Your task to perform on an android device: See recent photos Image 0: 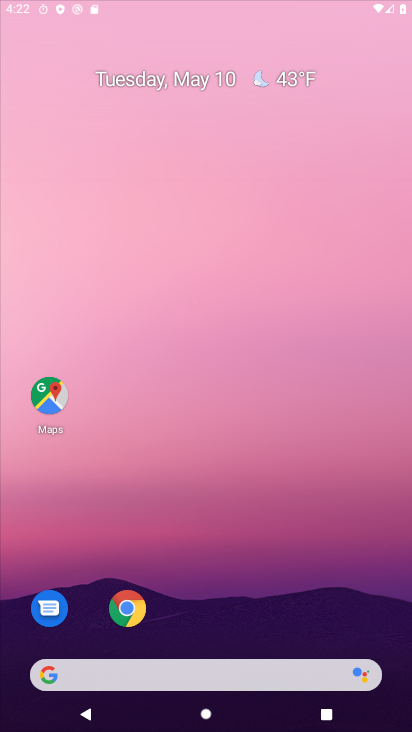
Step 0: drag from (276, 676) to (136, 148)
Your task to perform on an android device: See recent photos Image 1: 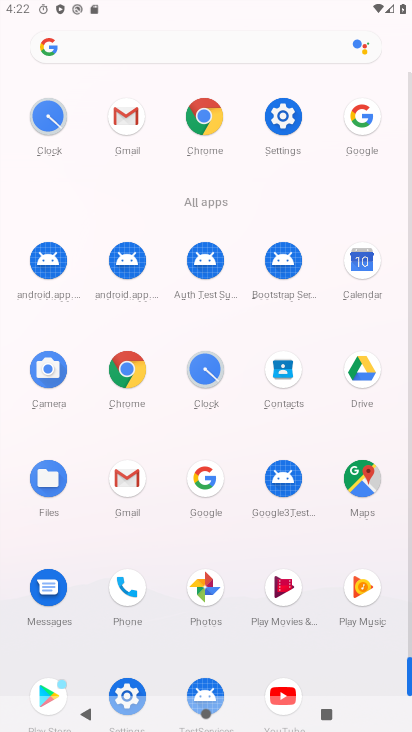
Step 1: click (218, 591)
Your task to perform on an android device: See recent photos Image 2: 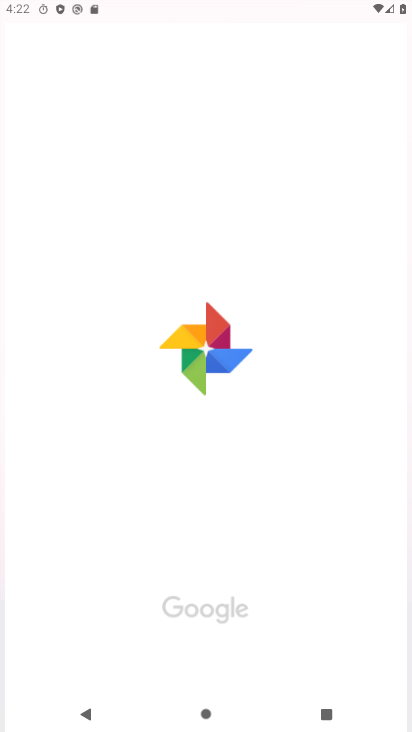
Step 2: click (212, 592)
Your task to perform on an android device: See recent photos Image 3: 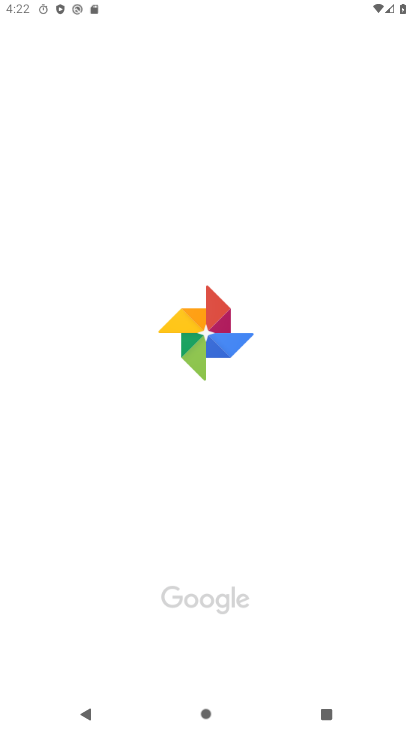
Step 3: click (210, 594)
Your task to perform on an android device: See recent photos Image 4: 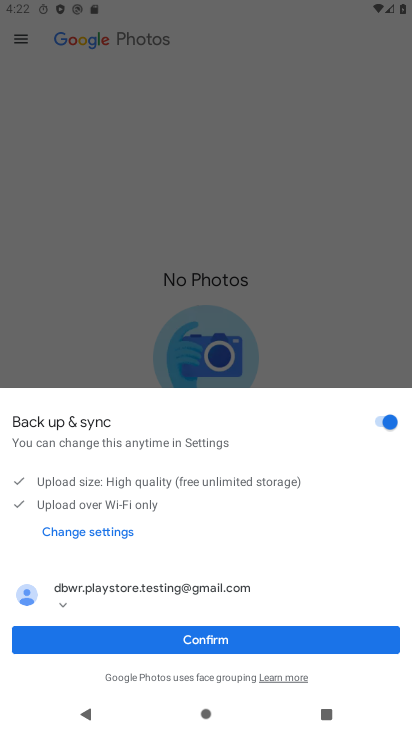
Step 4: click (207, 629)
Your task to perform on an android device: See recent photos Image 5: 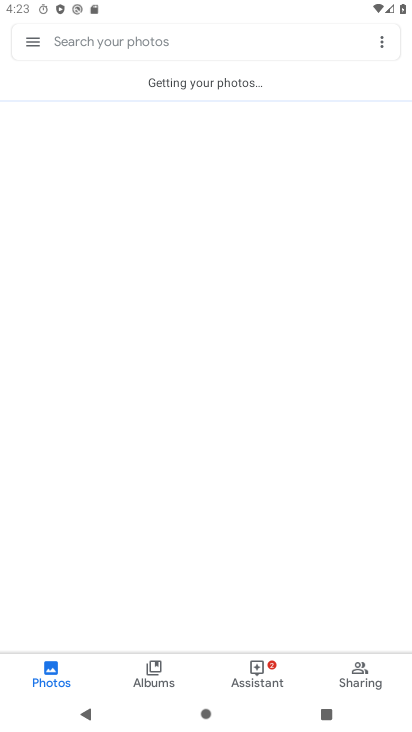
Step 5: task complete